Your task to perform on an android device: change the upload size in google photos Image 0: 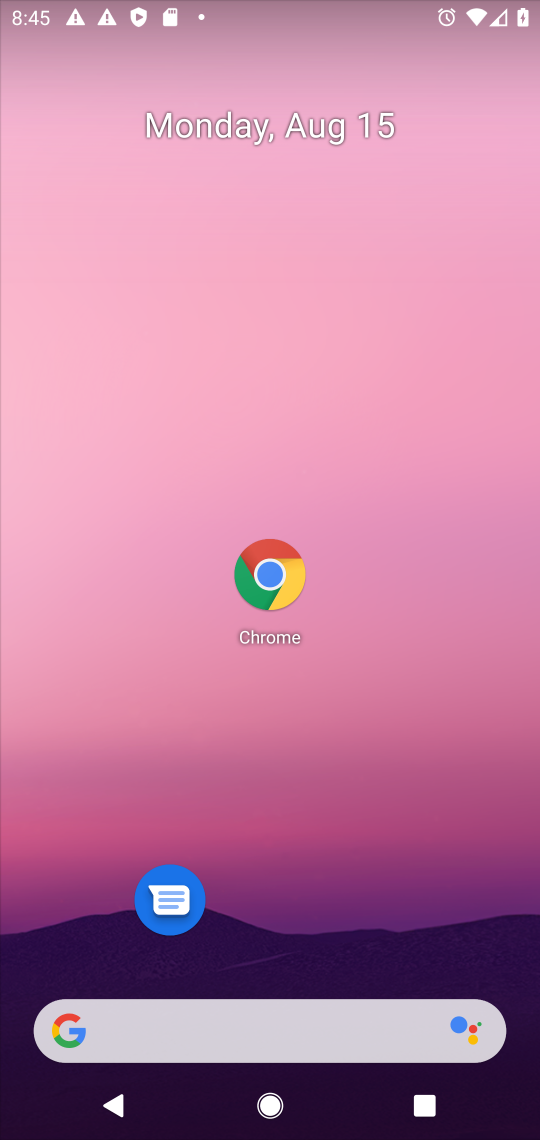
Step 0: drag from (364, 816) to (239, 239)
Your task to perform on an android device: change the upload size in google photos Image 1: 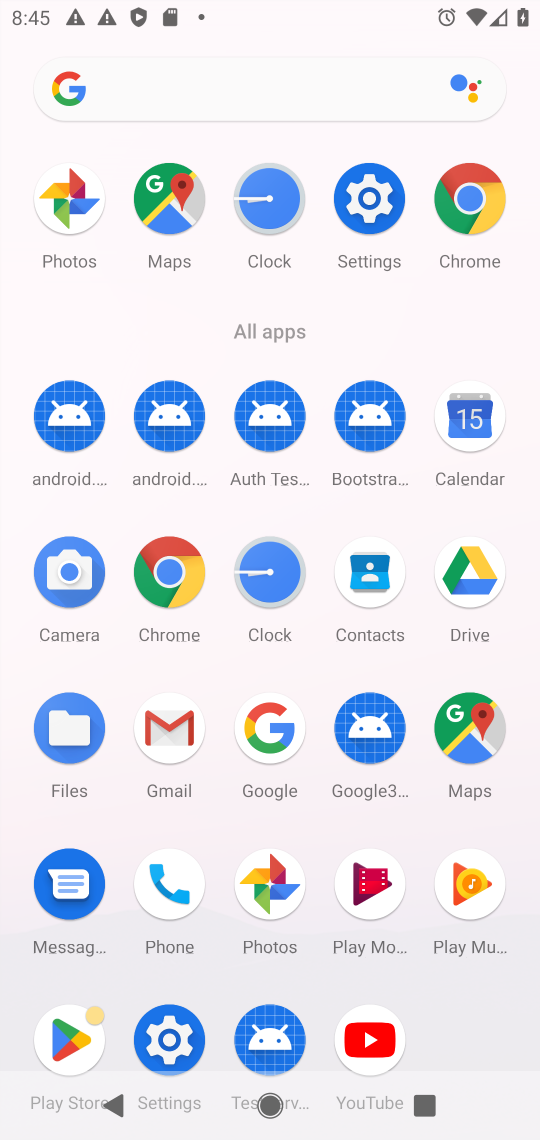
Step 1: click (287, 870)
Your task to perform on an android device: change the upload size in google photos Image 2: 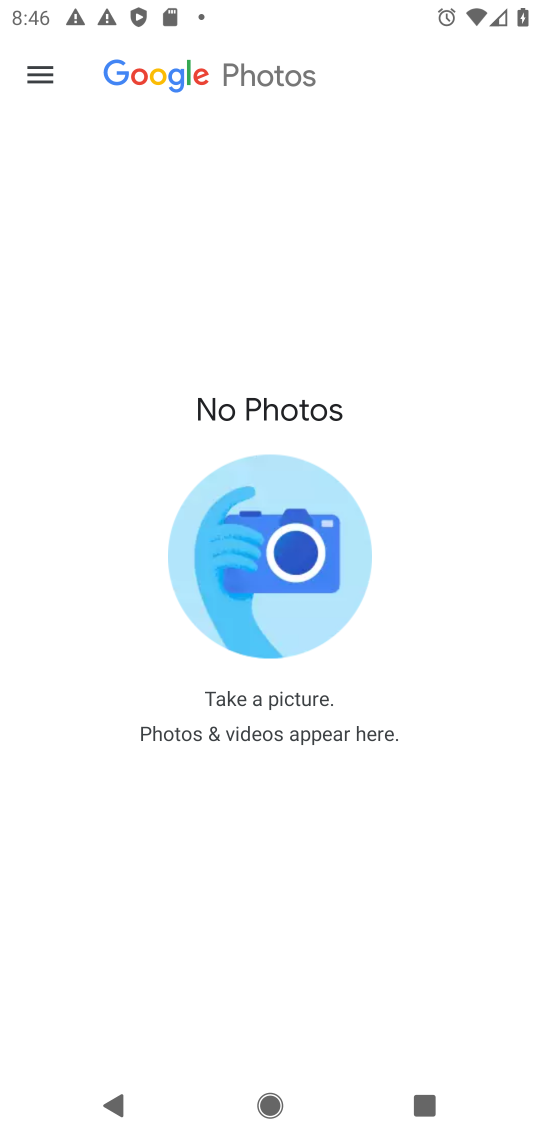
Step 2: click (47, 81)
Your task to perform on an android device: change the upload size in google photos Image 3: 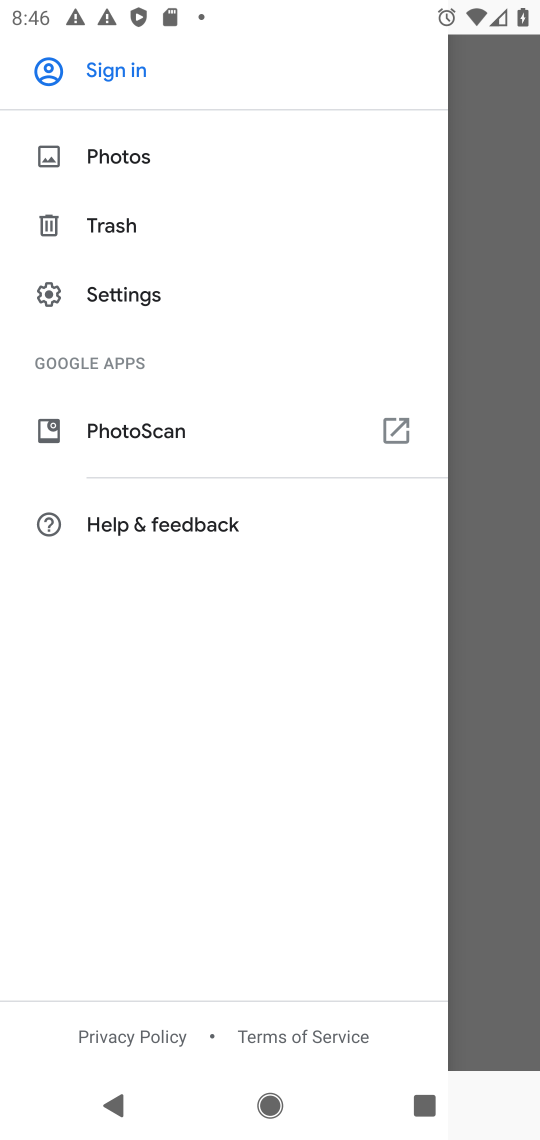
Step 3: click (107, 294)
Your task to perform on an android device: change the upload size in google photos Image 4: 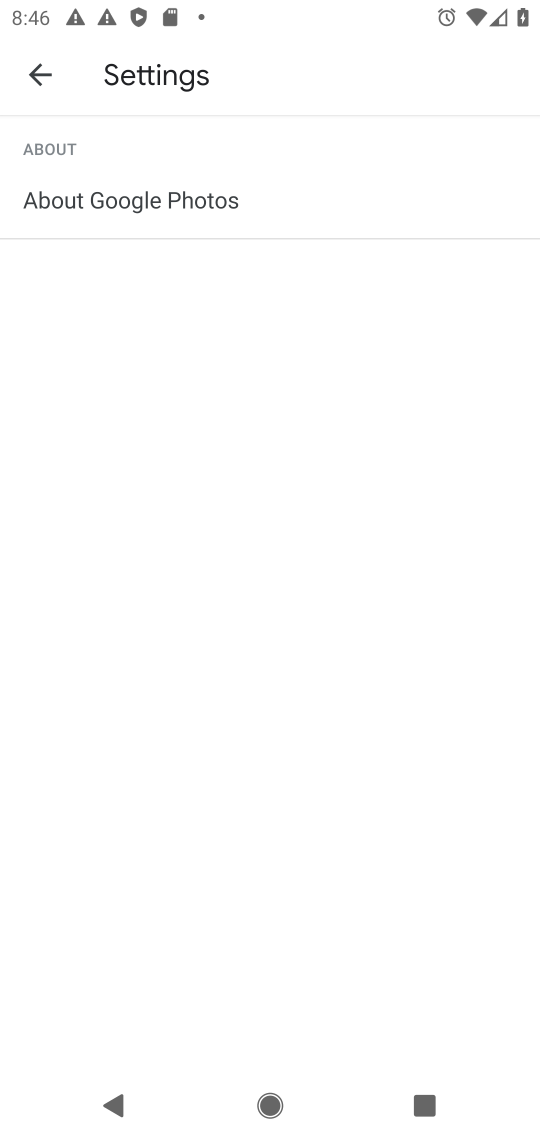
Step 4: task complete